Your task to perform on an android device: stop showing notifications on the lock screen Image 0: 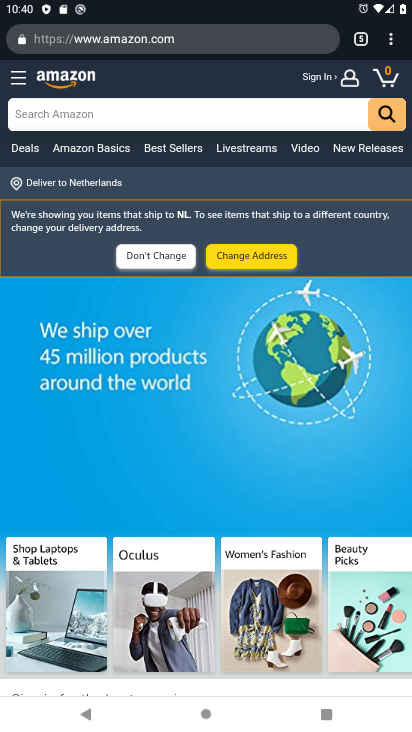
Step 0: press home button
Your task to perform on an android device: stop showing notifications on the lock screen Image 1: 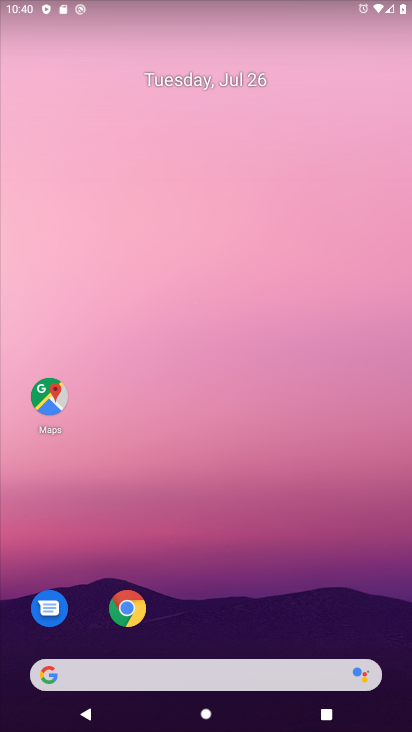
Step 1: drag from (244, 727) to (271, 176)
Your task to perform on an android device: stop showing notifications on the lock screen Image 2: 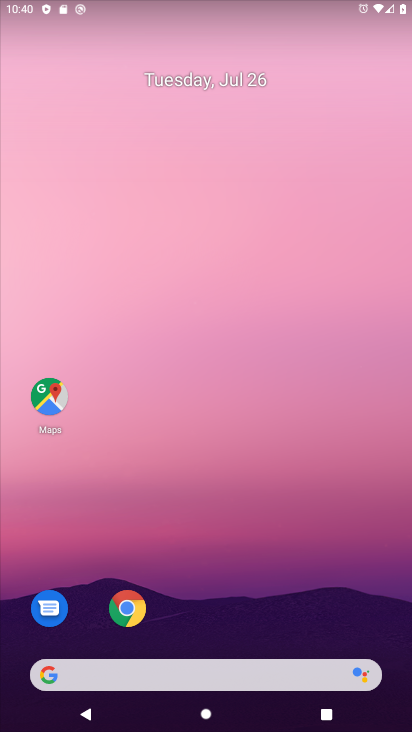
Step 2: drag from (233, 728) to (266, 39)
Your task to perform on an android device: stop showing notifications on the lock screen Image 3: 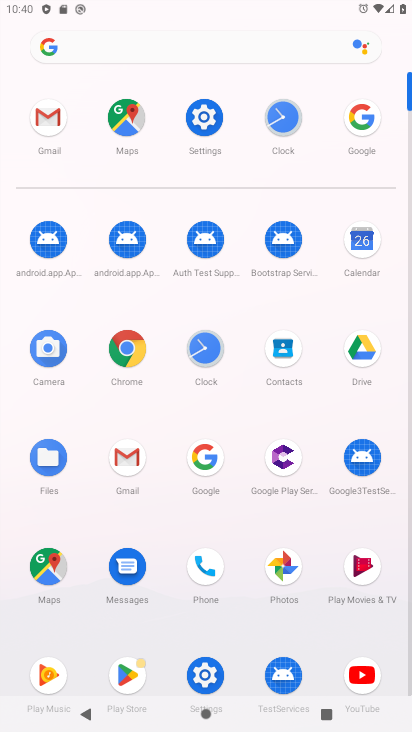
Step 3: click (201, 662)
Your task to perform on an android device: stop showing notifications on the lock screen Image 4: 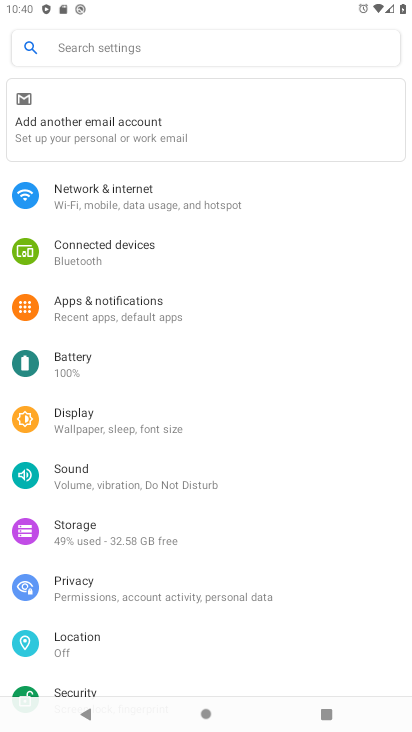
Step 4: click (115, 309)
Your task to perform on an android device: stop showing notifications on the lock screen Image 5: 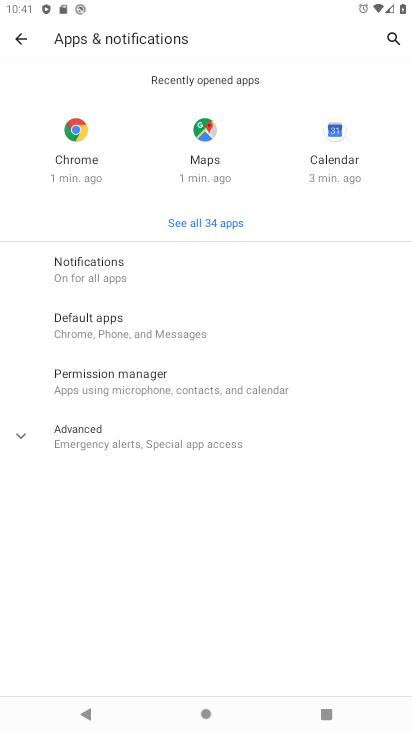
Step 5: click (83, 271)
Your task to perform on an android device: stop showing notifications on the lock screen Image 6: 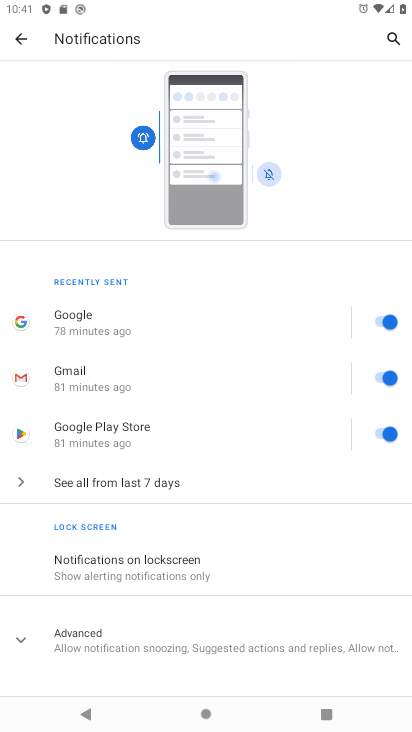
Step 6: click (125, 564)
Your task to perform on an android device: stop showing notifications on the lock screen Image 7: 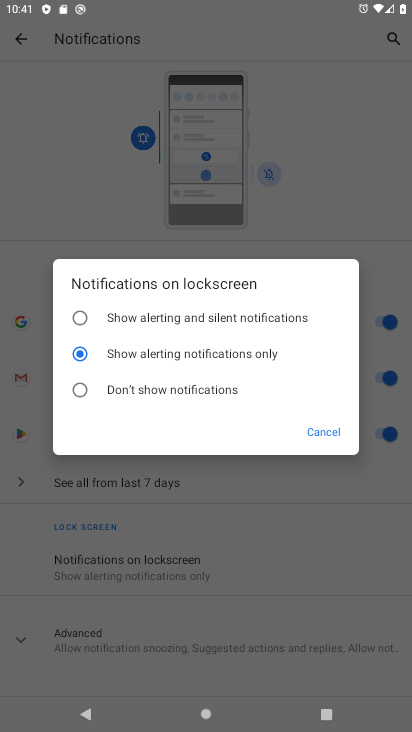
Step 7: click (81, 389)
Your task to perform on an android device: stop showing notifications on the lock screen Image 8: 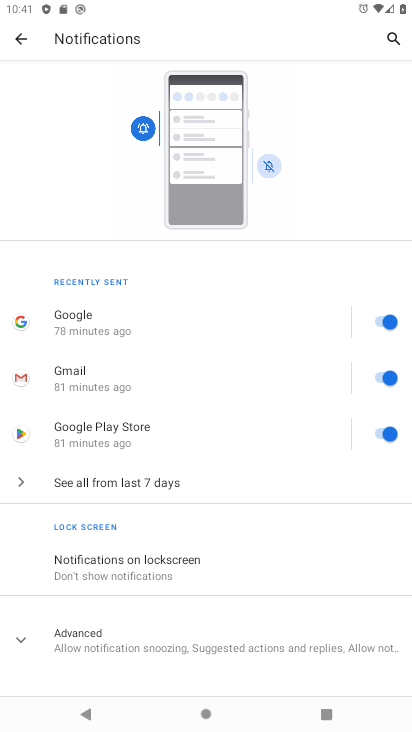
Step 8: task complete